Your task to perform on an android device: Open Google Chrome and click the shortcut for Amazon.com Image 0: 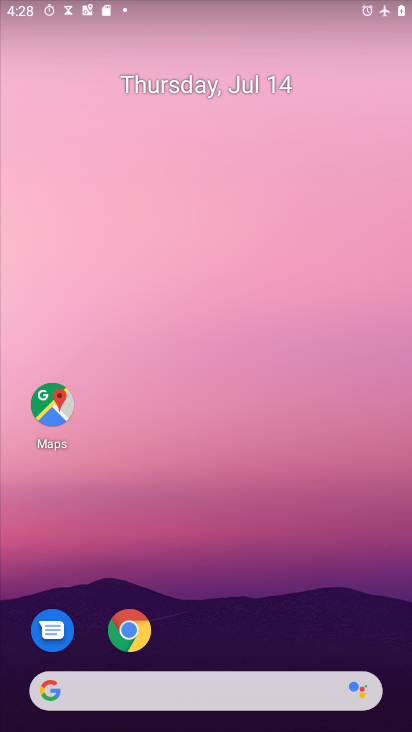
Step 0: click (136, 627)
Your task to perform on an android device: Open Google Chrome and click the shortcut for Amazon.com Image 1: 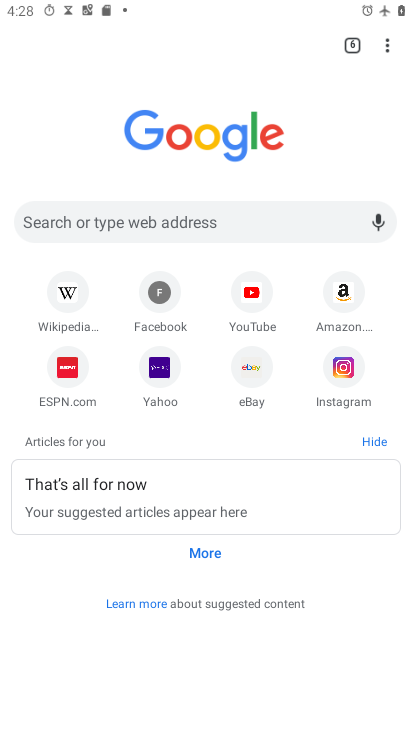
Step 1: click (343, 296)
Your task to perform on an android device: Open Google Chrome and click the shortcut for Amazon.com Image 2: 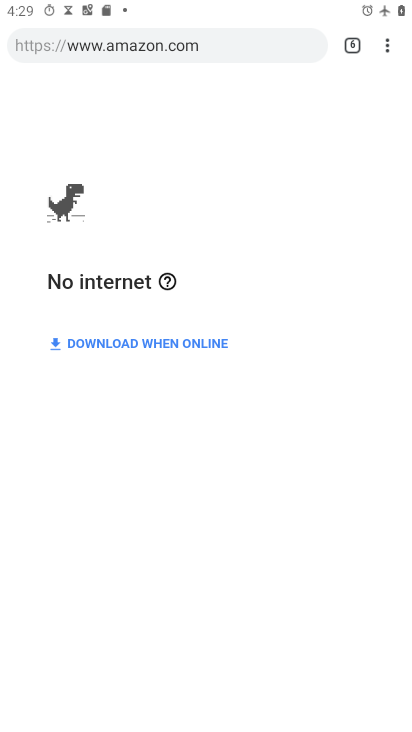
Step 2: task complete